Your task to perform on an android device: Go to Maps Image 0: 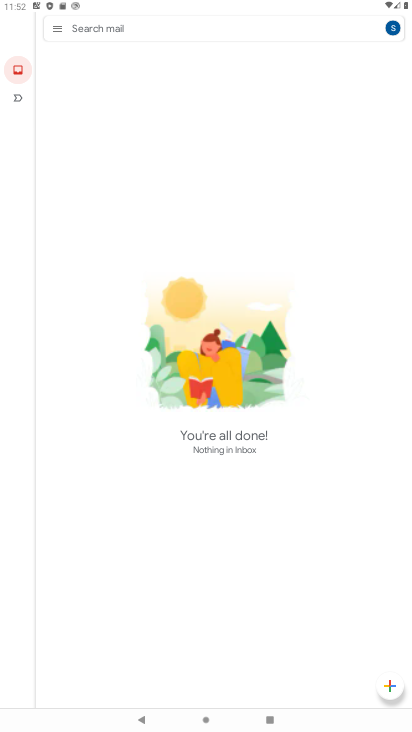
Step 0: press home button
Your task to perform on an android device: Go to Maps Image 1: 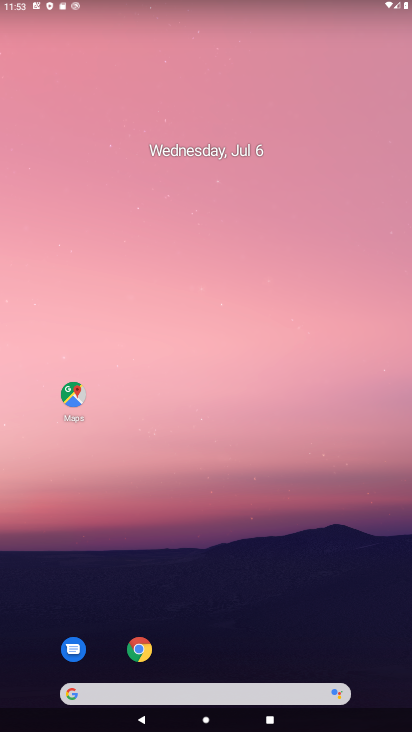
Step 1: click (72, 400)
Your task to perform on an android device: Go to Maps Image 2: 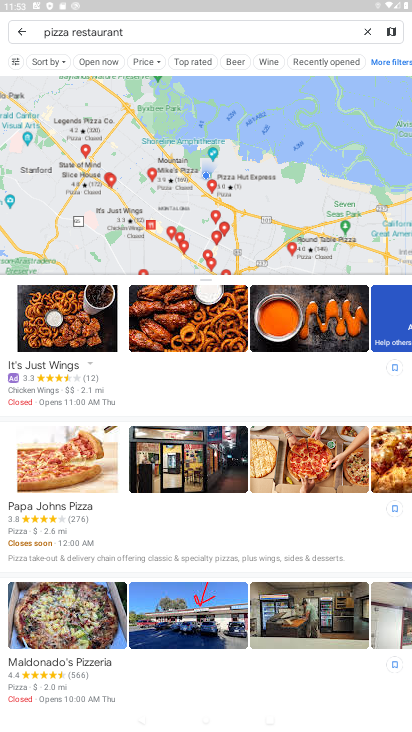
Step 2: click (21, 27)
Your task to perform on an android device: Go to Maps Image 3: 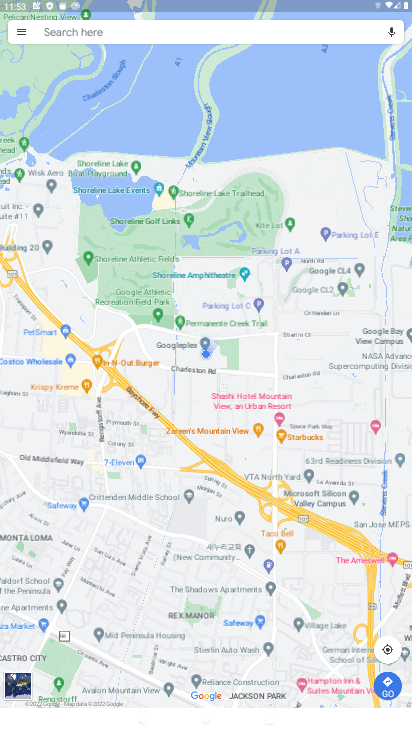
Step 3: task complete